Your task to perform on an android device: Go to Android settings Image 0: 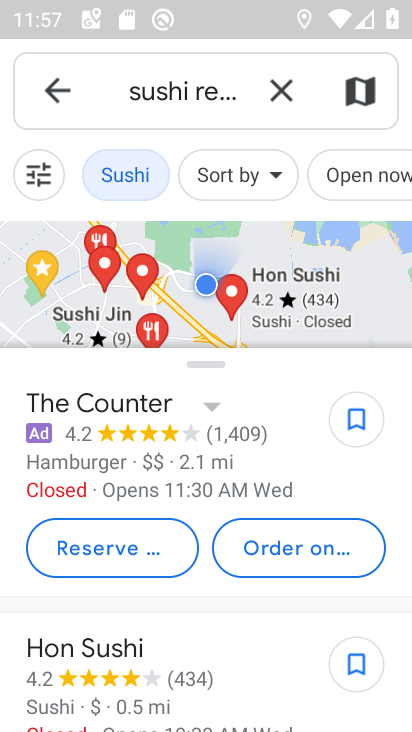
Step 0: press home button
Your task to perform on an android device: Go to Android settings Image 1: 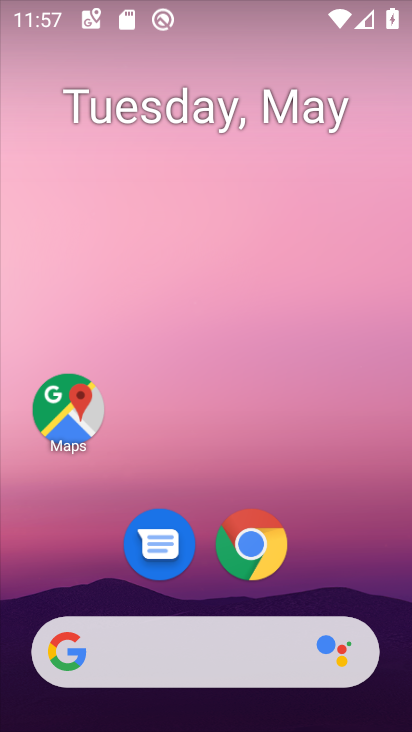
Step 1: drag from (234, 507) to (218, 57)
Your task to perform on an android device: Go to Android settings Image 2: 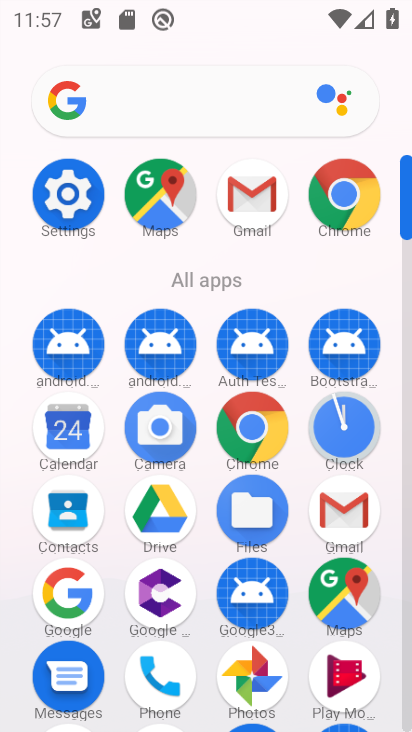
Step 2: click (82, 204)
Your task to perform on an android device: Go to Android settings Image 3: 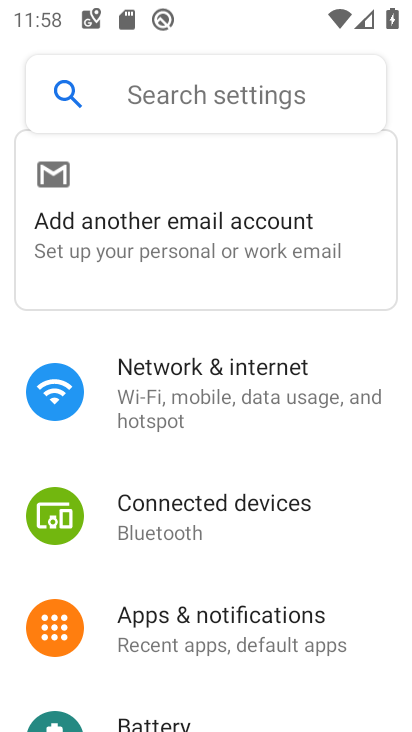
Step 3: task complete